Your task to perform on an android device: turn on airplane mode Image 0: 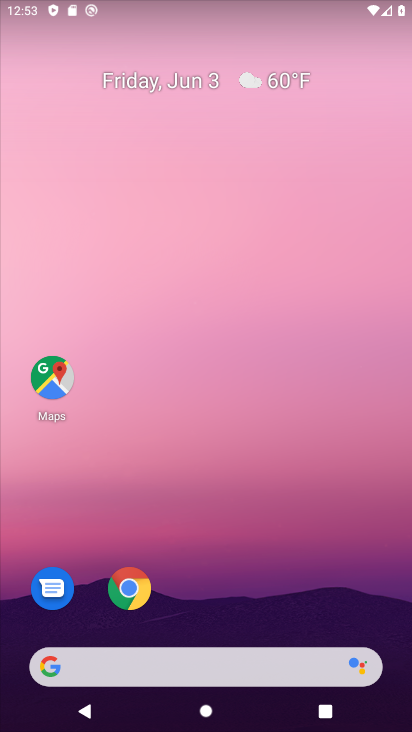
Step 0: drag from (299, 5) to (339, 457)
Your task to perform on an android device: turn on airplane mode Image 1: 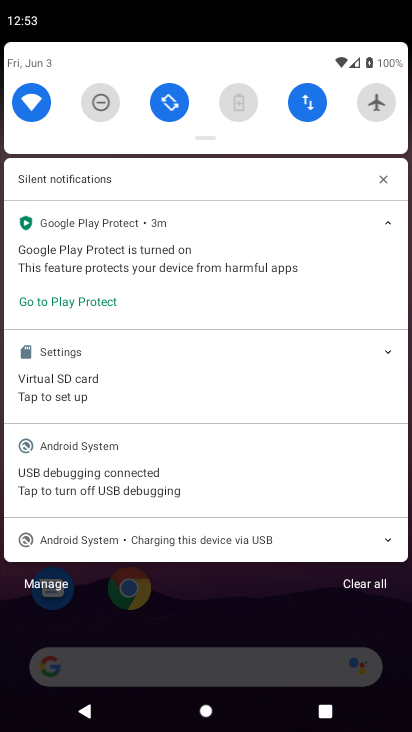
Step 1: click (373, 99)
Your task to perform on an android device: turn on airplane mode Image 2: 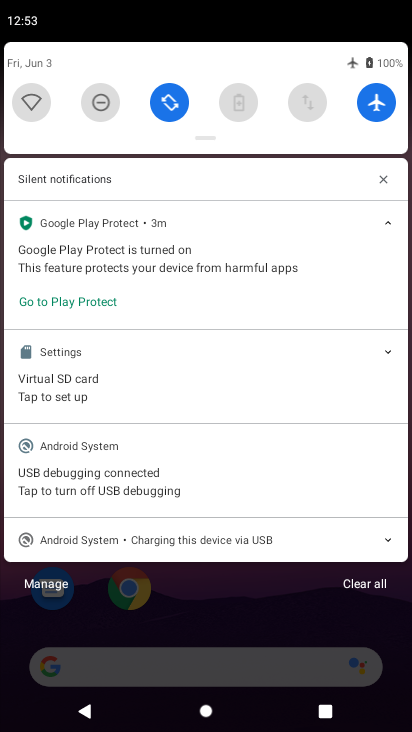
Step 2: task complete